Your task to perform on an android device: Is it going to rain this weekend? Image 0: 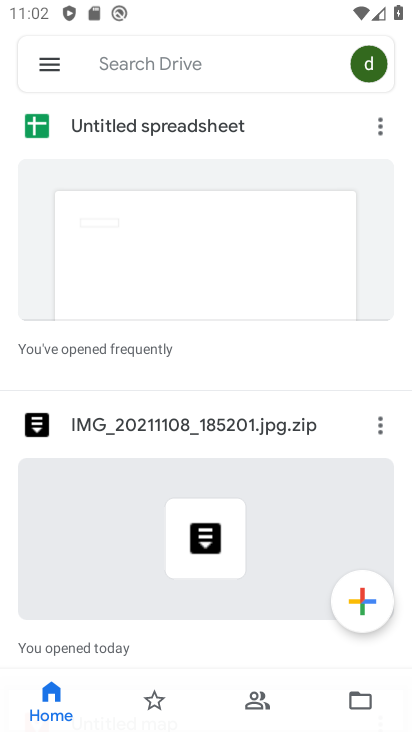
Step 0: press home button
Your task to perform on an android device: Is it going to rain this weekend? Image 1: 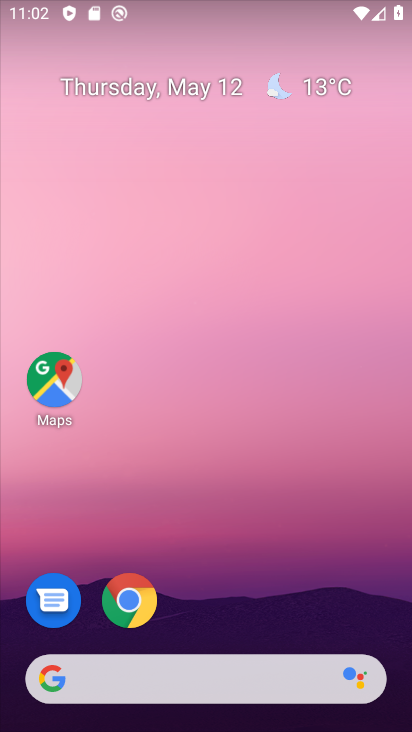
Step 1: drag from (394, 635) to (342, 137)
Your task to perform on an android device: Is it going to rain this weekend? Image 2: 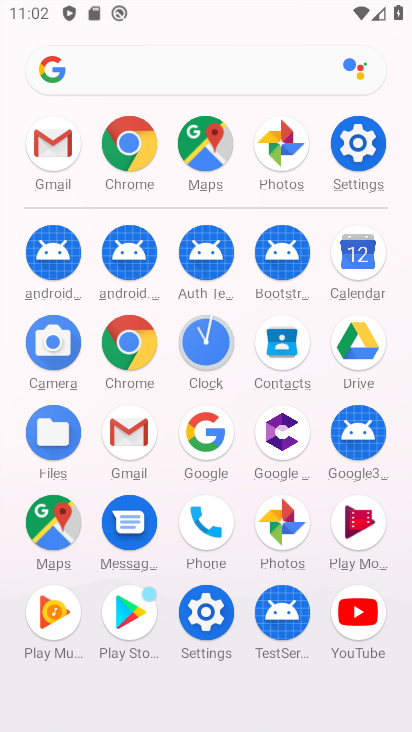
Step 2: click (198, 66)
Your task to perform on an android device: Is it going to rain this weekend? Image 3: 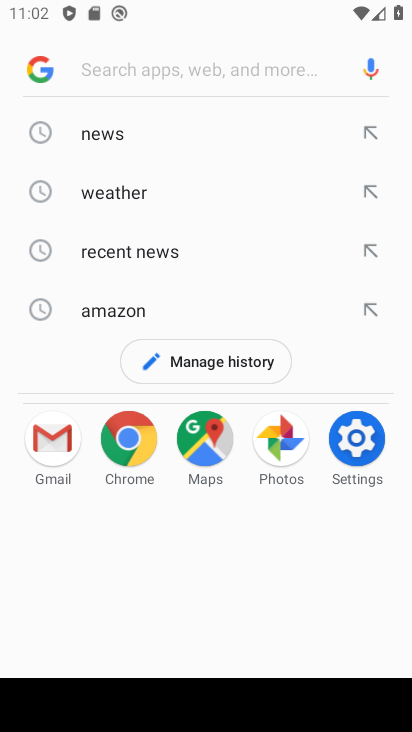
Step 3: click (121, 184)
Your task to perform on an android device: Is it going to rain this weekend? Image 4: 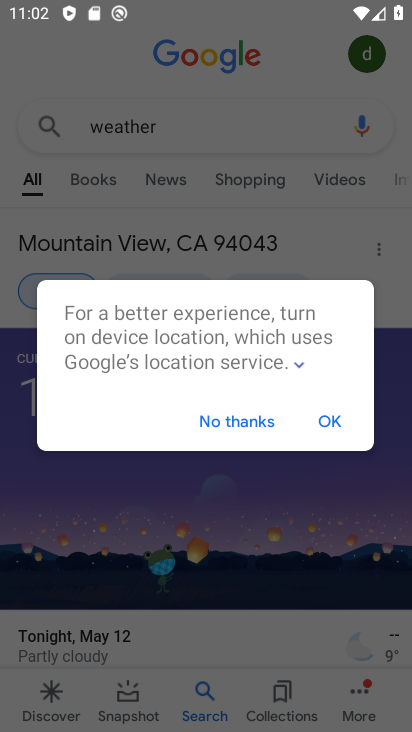
Step 4: click (330, 415)
Your task to perform on an android device: Is it going to rain this weekend? Image 5: 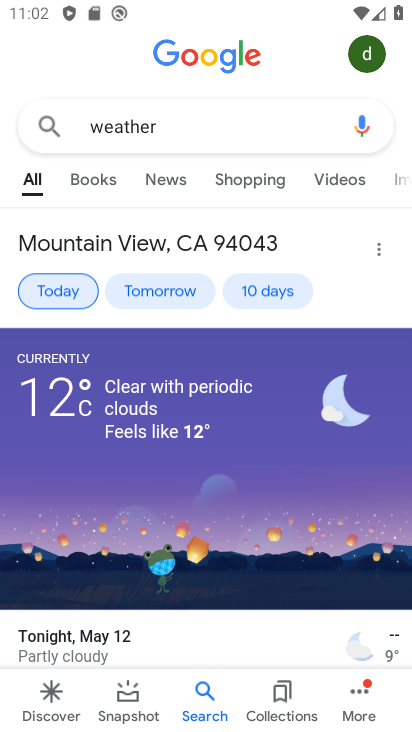
Step 5: click (271, 290)
Your task to perform on an android device: Is it going to rain this weekend? Image 6: 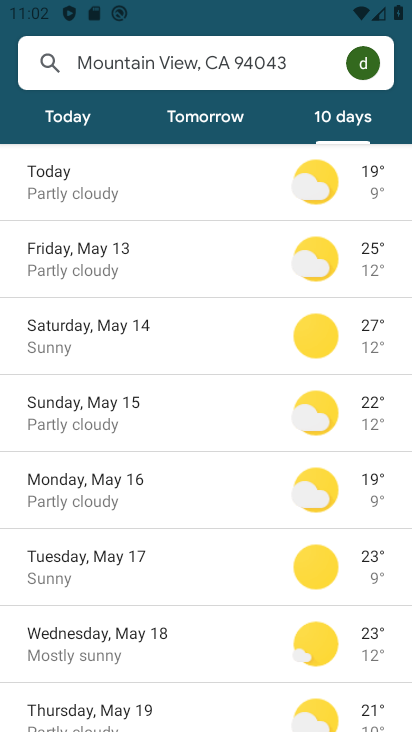
Step 6: task complete